Your task to perform on an android device: turn on translation in the chrome app Image 0: 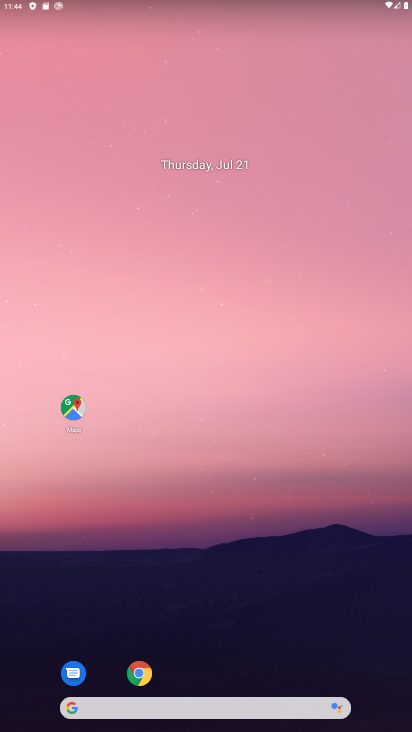
Step 0: drag from (254, 645) to (135, 32)
Your task to perform on an android device: turn on translation in the chrome app Image 1: 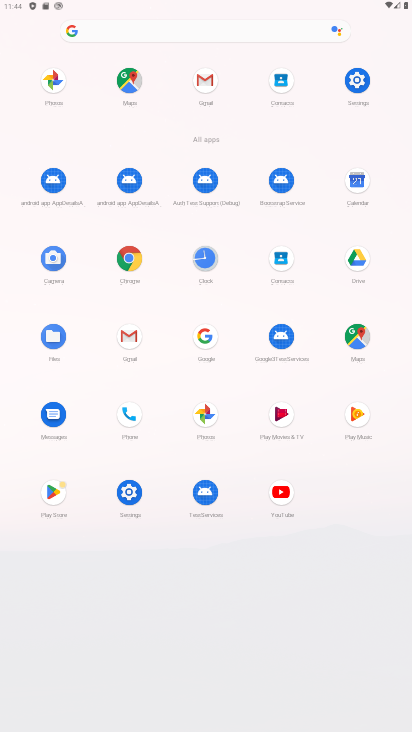
Step 1: click (132, 265)
Your task to perform on an android device: turn on translation in the chrome app Image 2: 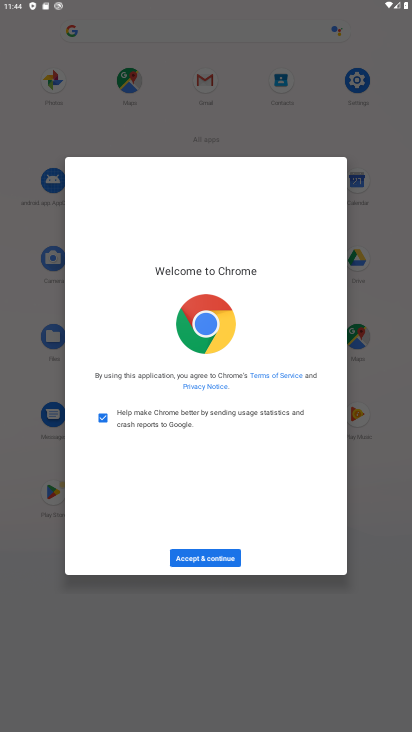
Step 2: click (217, 556)
Your task to perform on an android device: turn on translation in the chrome app Image 3: 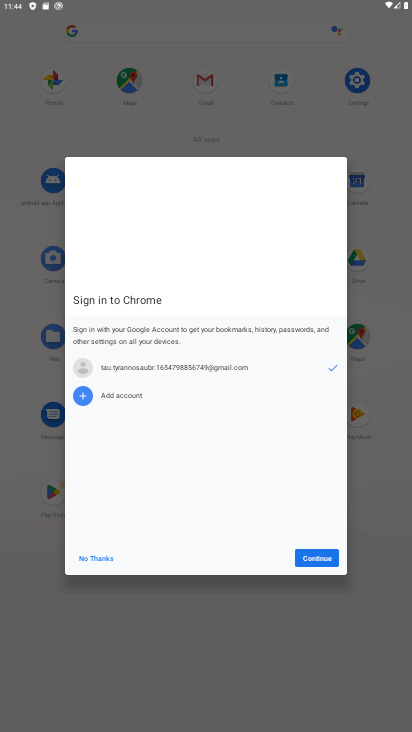
Step 3: click (309, 566)
Your task to perform on an android device: turn on translation in the chrome app Image 4: 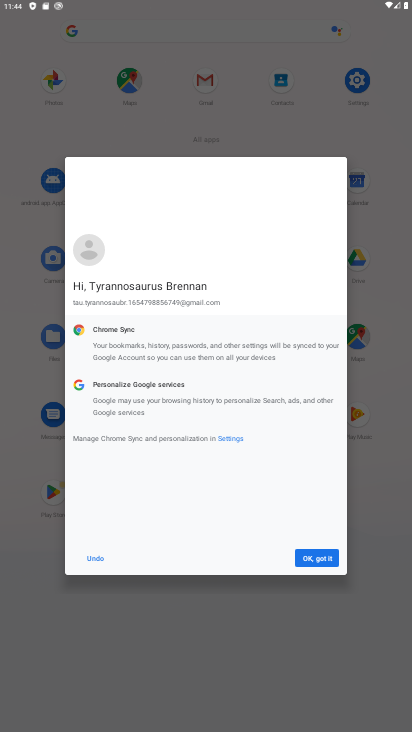
Step 4: click (327, 552)
Your task to perform on an android device: turn on translation in the chrome app Image 5: 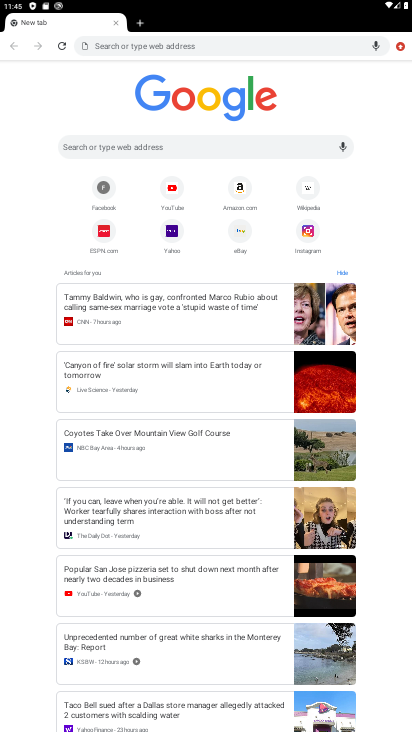
Step 5: click (402, 55)
Your task to perform on an android device: turn on translation in the chrome app Image 6: 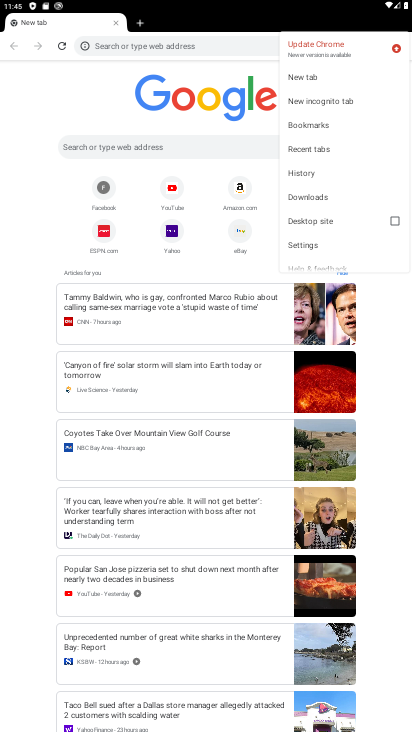
Step 6: click (325, 242)
Your task to perform on an android device: turn on translation in the chrome app Image 7: 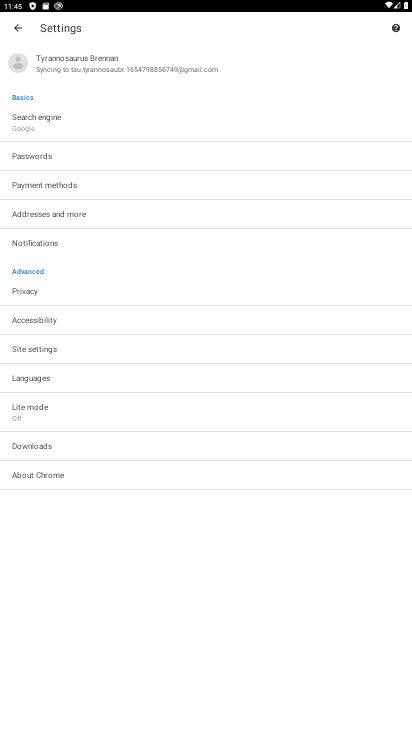
Step 7: click (99, 376)
Your task to perform on an android device: turn on translation in the chrome app Image 8: 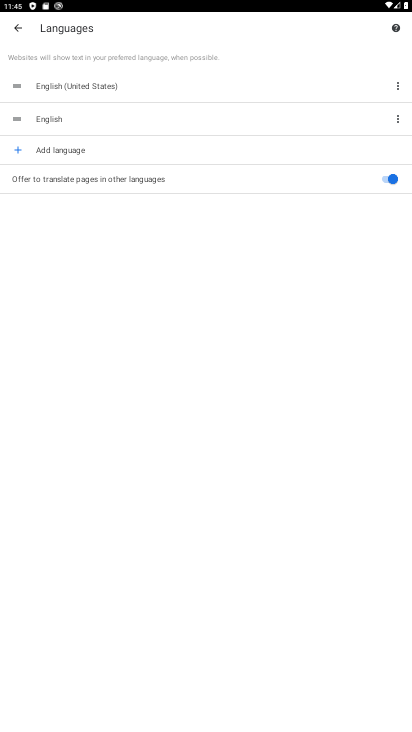
Step 8: task complete